Your task to perform on an android device: Open eBay Image 0: 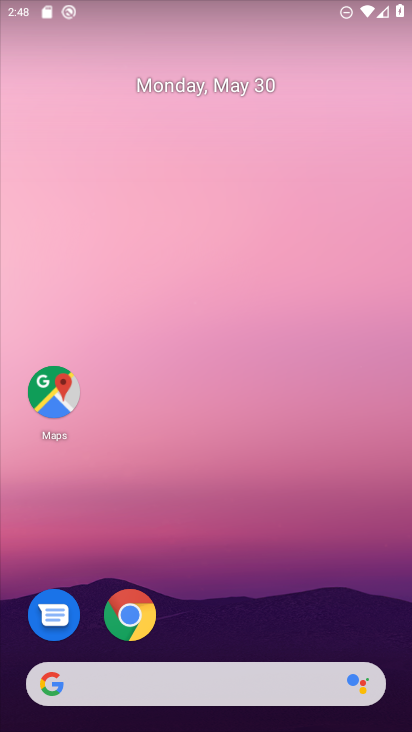
Step 0: click (122, 621)
Your task to perform on an android device: Open eBay Image 1: 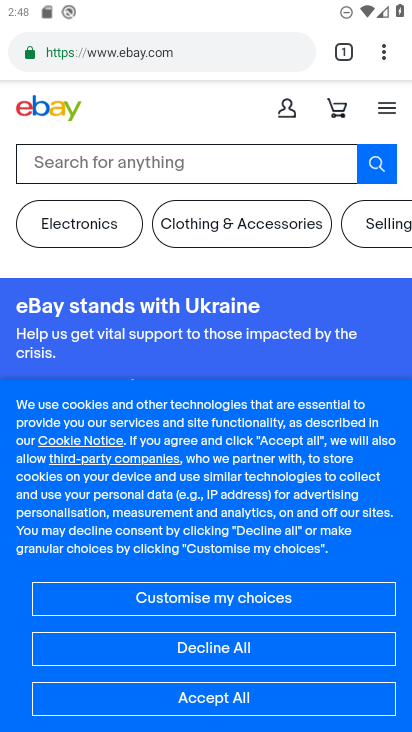
Step 1: task complete